Your task to perform on an android device: Open maps Image 0: 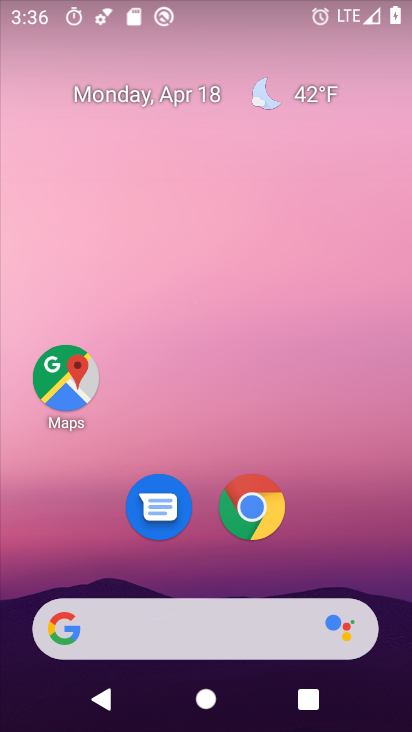
Step 0: drag from (380, 540) to (368, 103)
Your task to perform on an android device: Open maps Image 1: 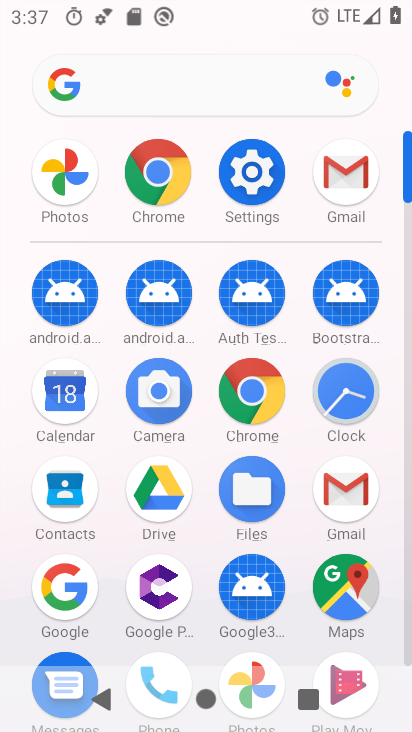
Step 1: click (335, 611)
Your task to perform on an android device: Open maps Image 2: 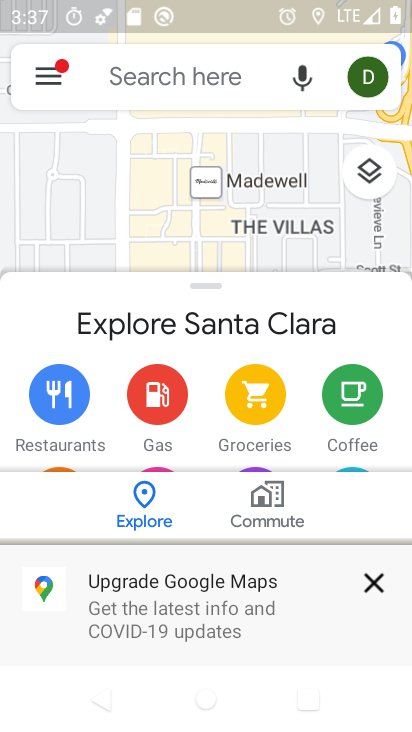
Step 2: task complete